Your task to perform on an android device: Open privacy settings Image 0: 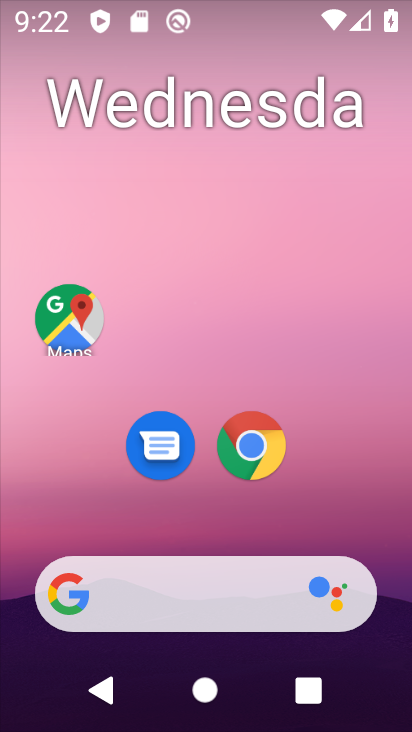
Step 0: drag from (209, 546) to (274, 67)
Your task to perform on an android device: Open privacy settings Image 1: 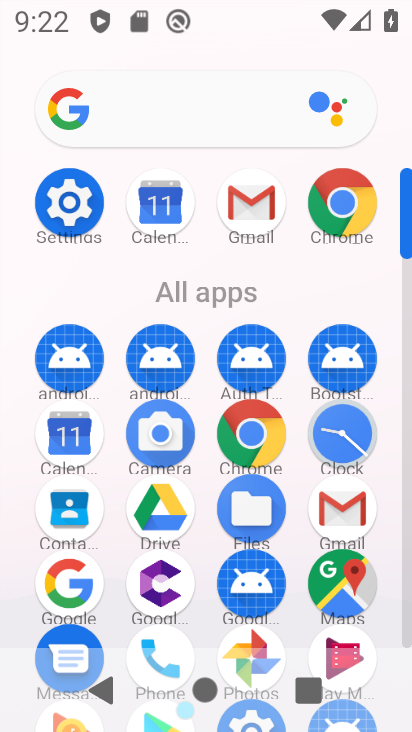
Step 1: click (82, 205)
Your task to perform on an android device: Open privacy settings Image 2: 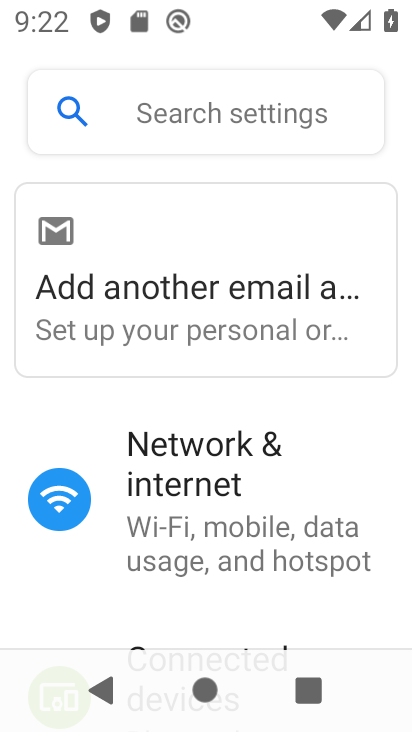
Step 2: drag from (154, 515) to (257, 79)
Your task to perform on an android device: Open privacy settings Image 3: 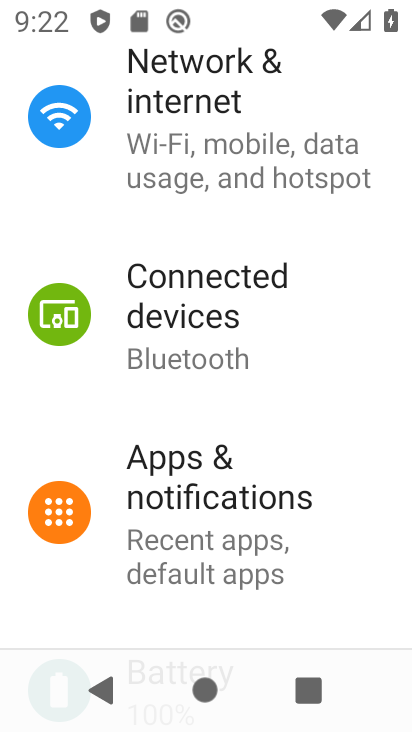
Step 3: drag from (219, 572) to (295, 71)
Your task to perform on an android device: Open privacy settings Image 4: 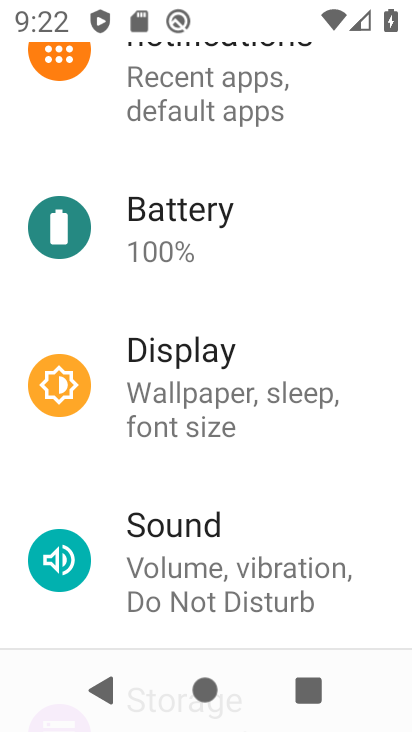
Step 4: drag from (173, 601) to (236, 145)
Your task to perform on an android device: Open privacy settings Image 5: 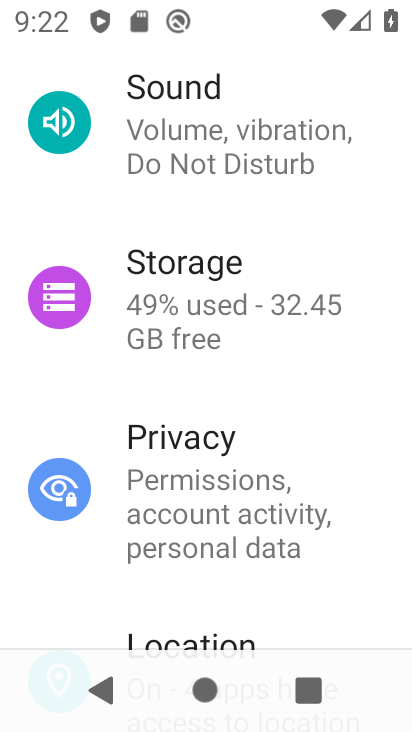
Step 5: click (196, 477)
Your task to perform on an android device: Open privacy settings Image 6: 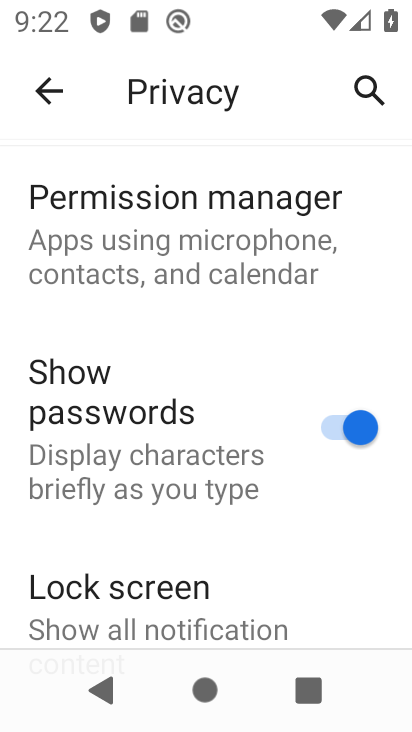
Step 6: task complete